Your task to perform on an android device: toggle notifications settings in the gmail app Image 0: 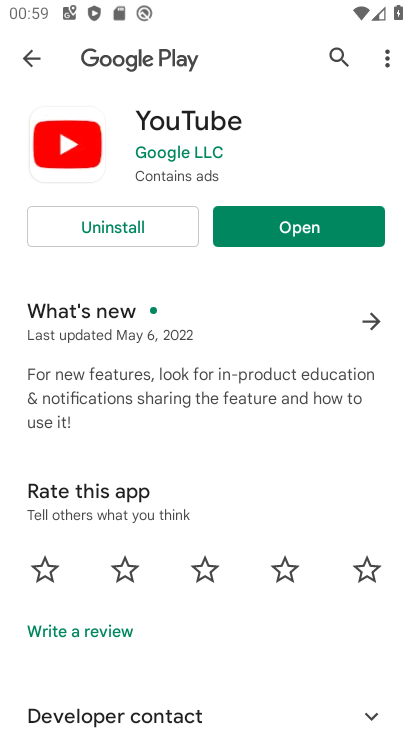
Step 0: press back button
Your task to perform on an android device: toggle notifications settings in the gmail app Image 1: 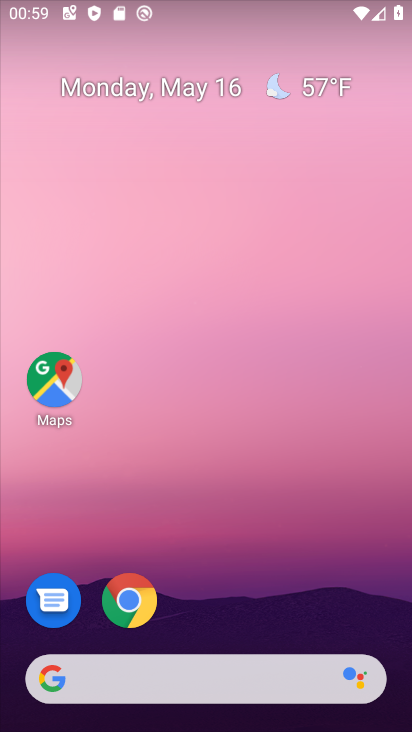
Step 1: drag from (253, 566) to (288, 20)
Your task to perform on an android device: toggle notifications settings in the gmail app Image 2: 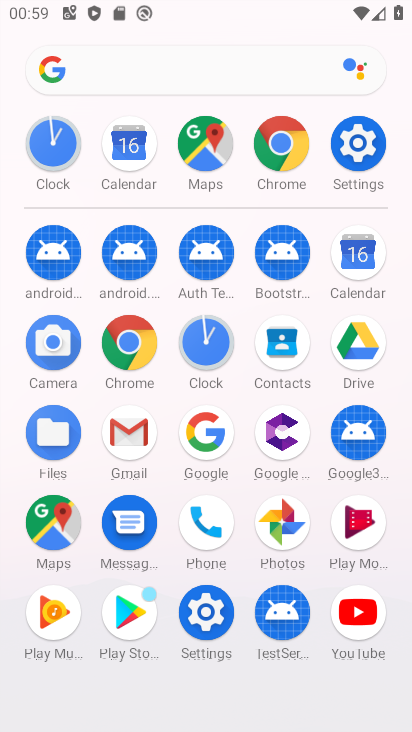
Step 2: click (131, 423)
Your task to perform on an android device: toggle notifications settings in the gmail app Image 3: 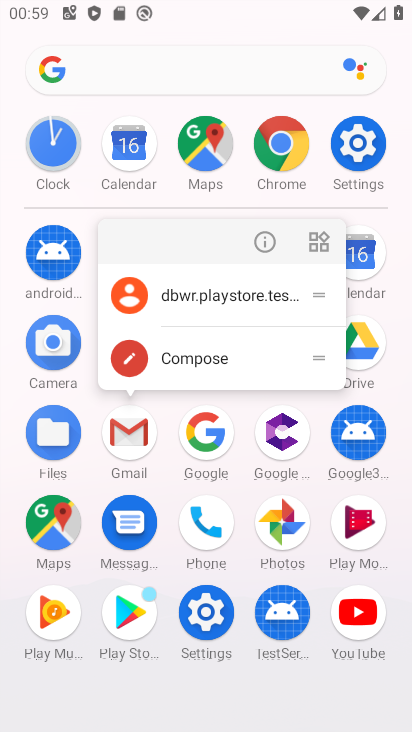
Step 3: click (268, 246)
Your task to perform on an android device: toggle notifications settings in the gmail app Image 4: 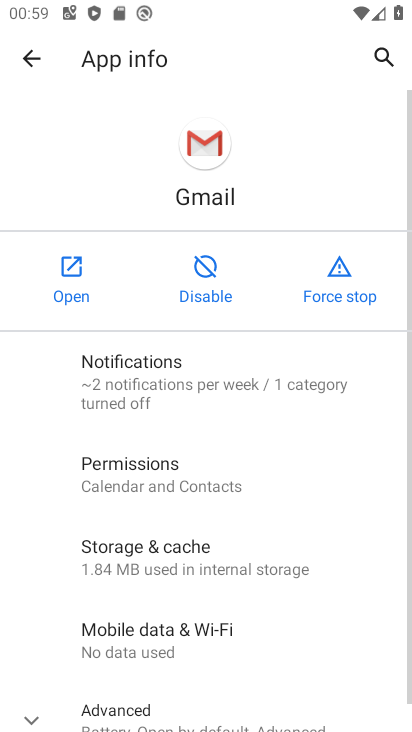
Step 4: click (148, 403)
Your task to perform on an android device: toggle notifications settings in the gmail app Image 5: 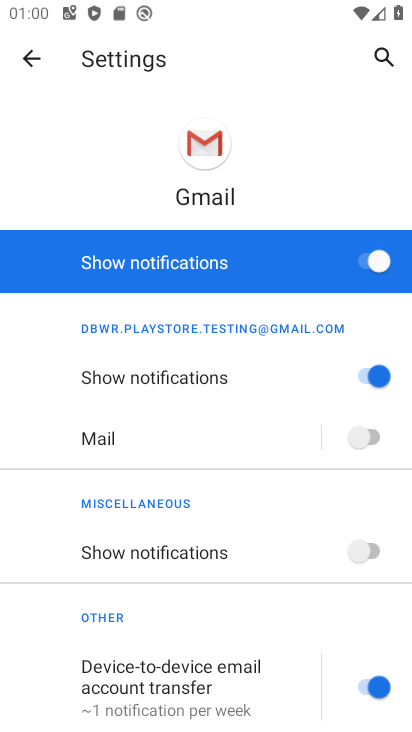
Step 5: click (371, 260)
Your task to perform on an android device: toggle notifications settings in the gmail app Image 6: 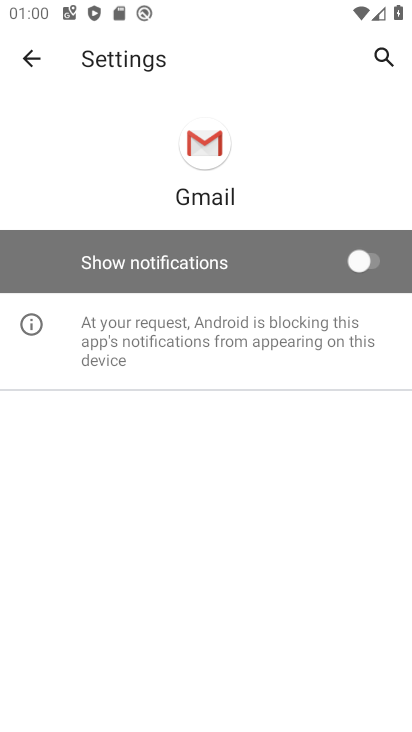
Step 6: task complete